Your task to perform on an android device: clear all cookies in the chrome app Image 0: 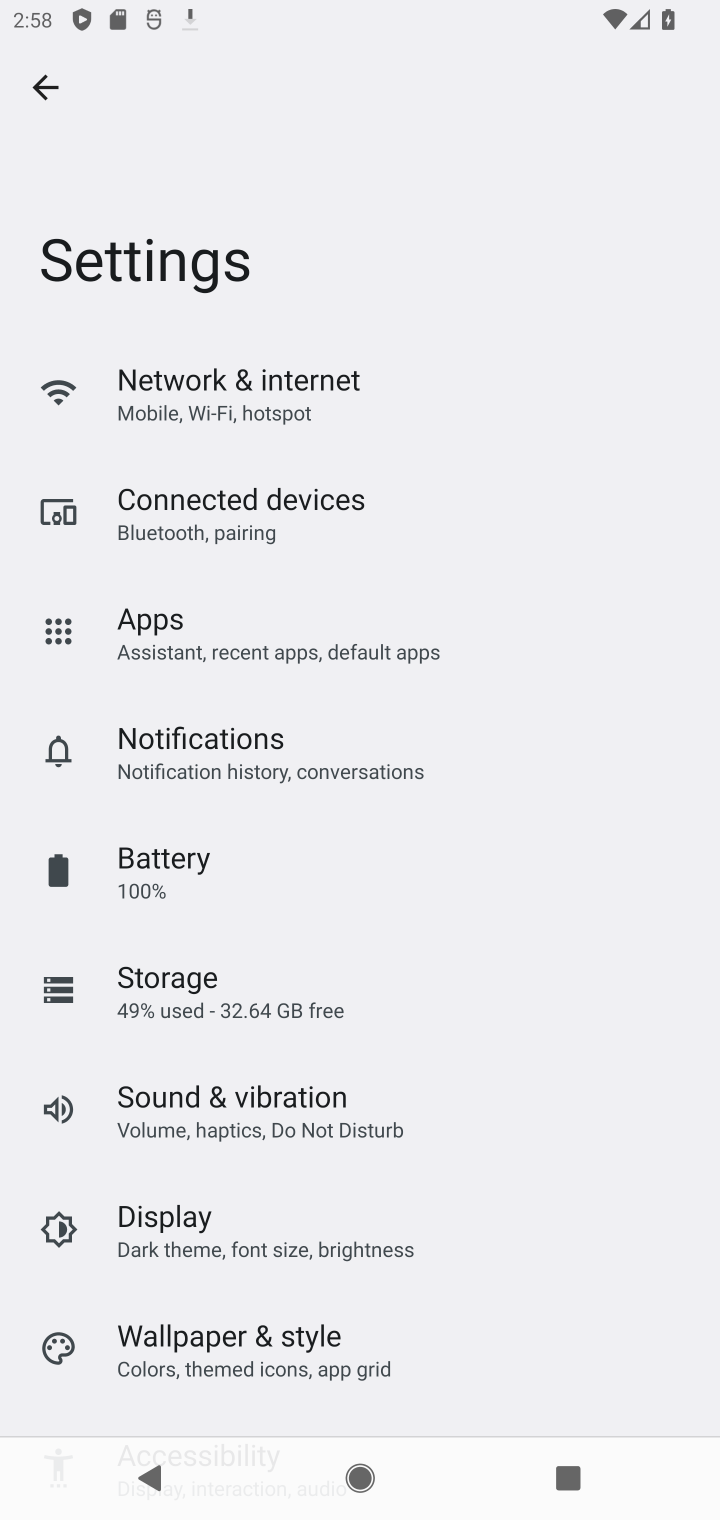
Step 0: press back button
Your task to perform on an android device: clear all cookies in the chrome app Image 1: 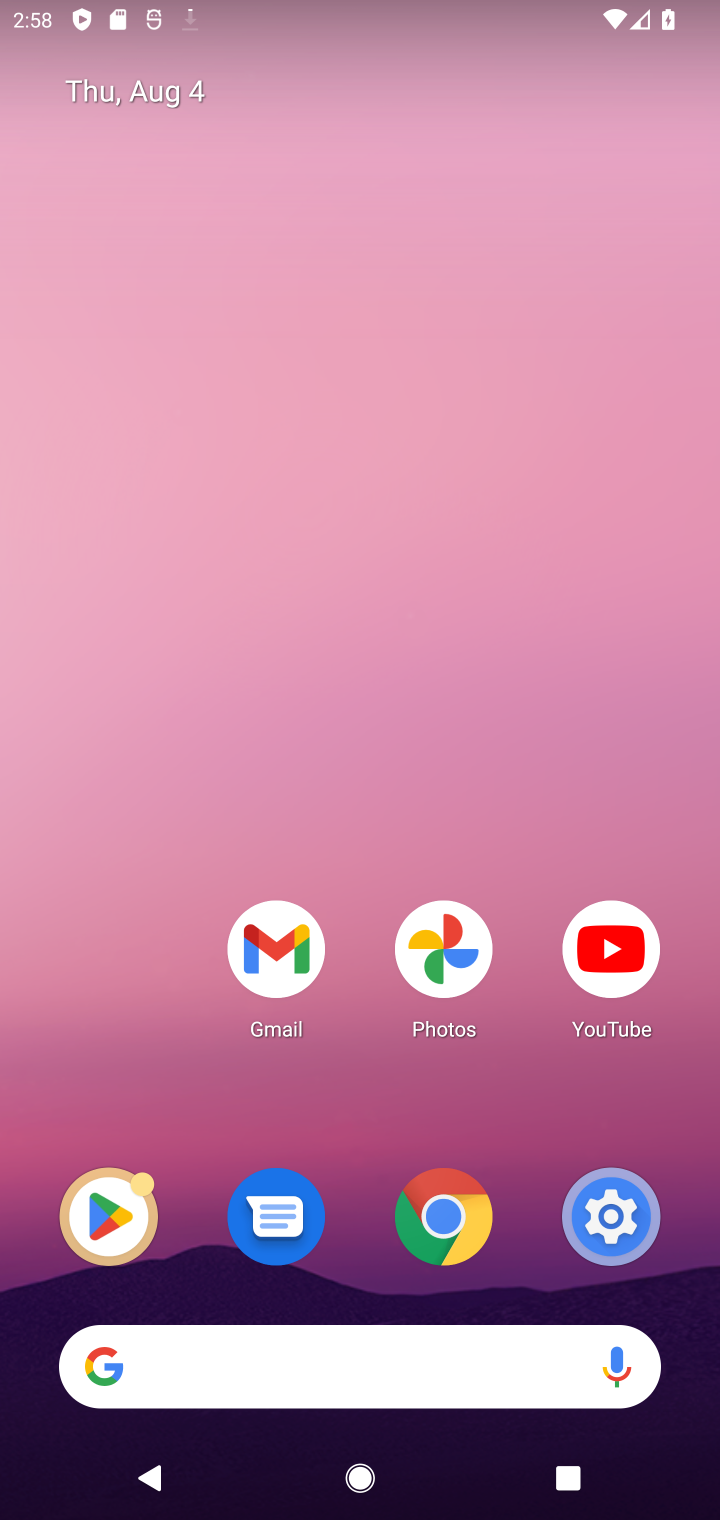
Step 1: click (449, 1212)
Your task to perform on an android device: clear all cookies in the chrome app Image 2: 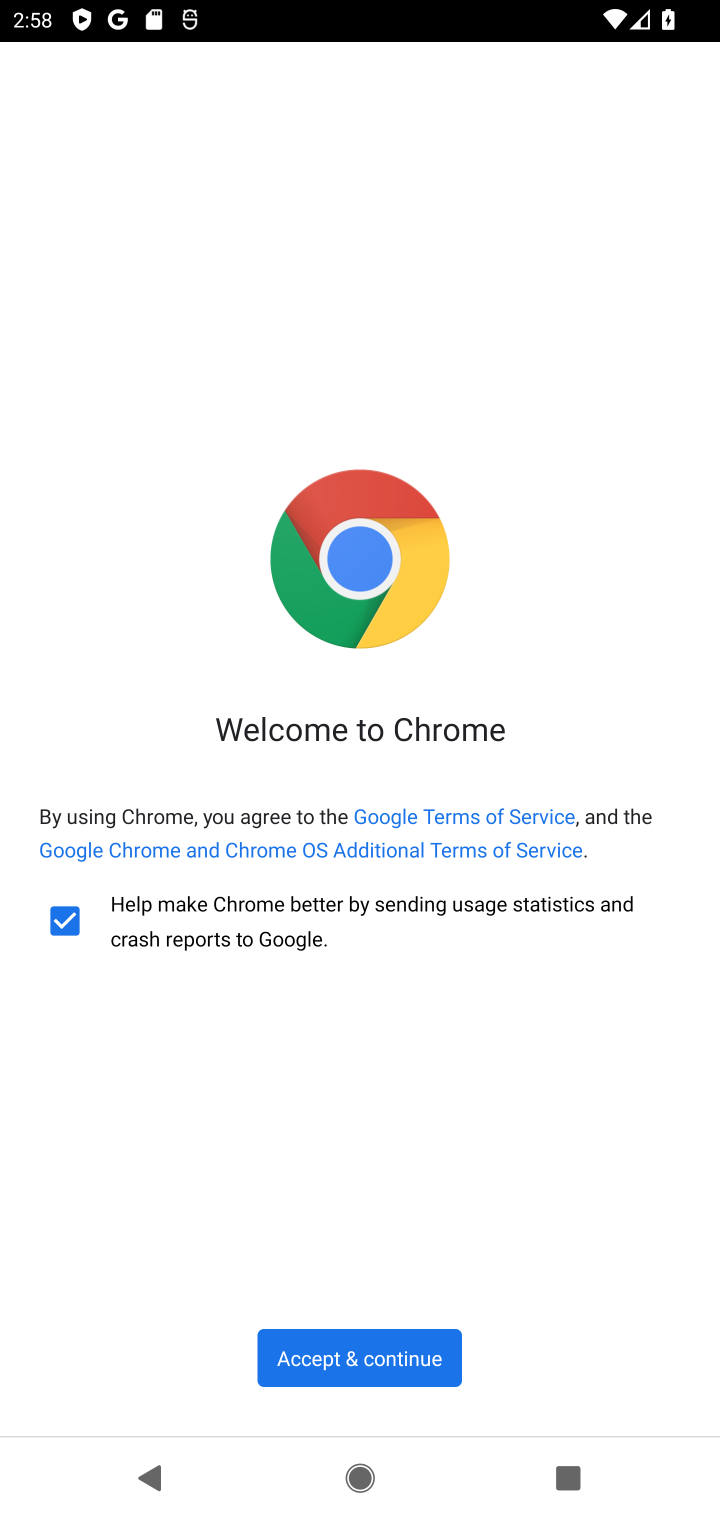
Step 2: click (351, 1361)
Your task to perform on an android device: clear all cookies in the chrome app Image 3: 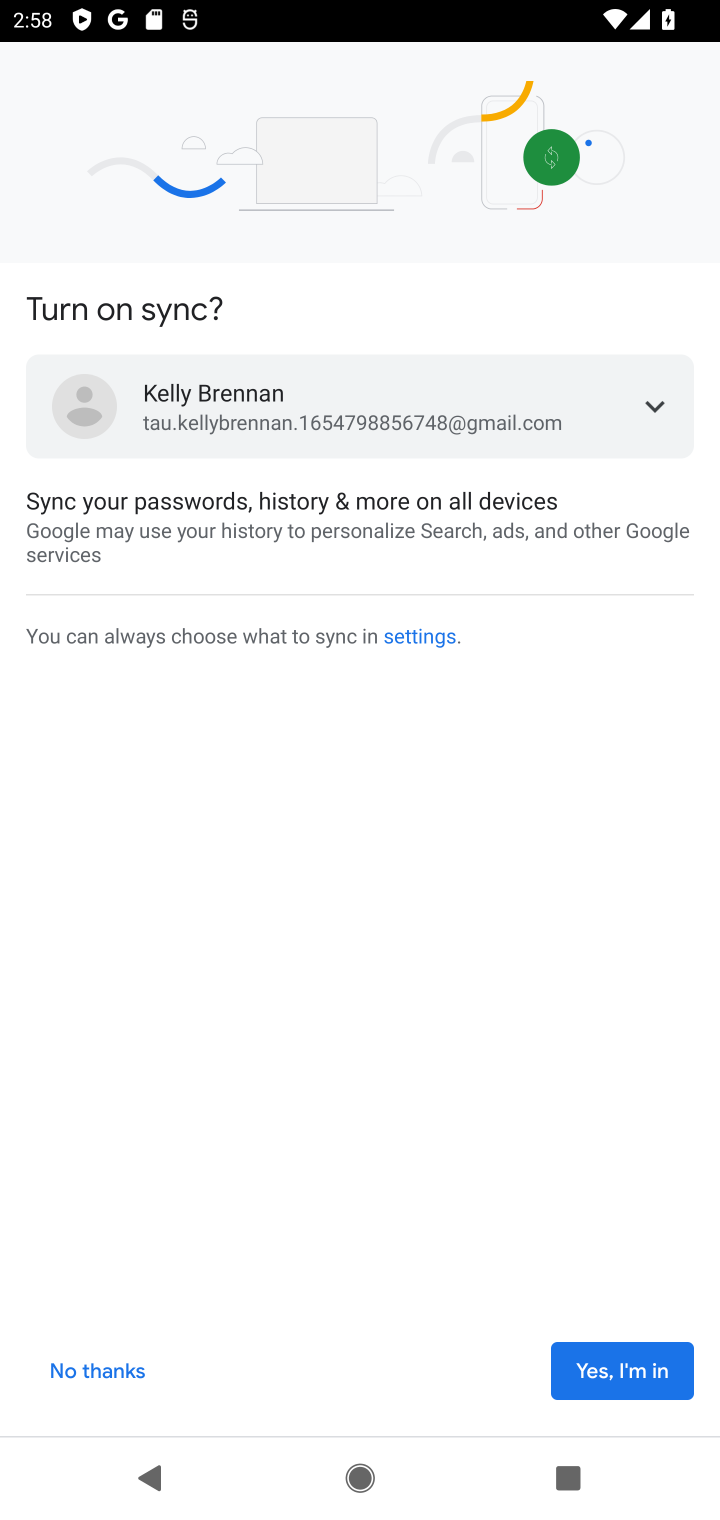
Step 3: click (613, 1362)
Your task to perform on an android device: clear all cookies in the chrome app Image 4: 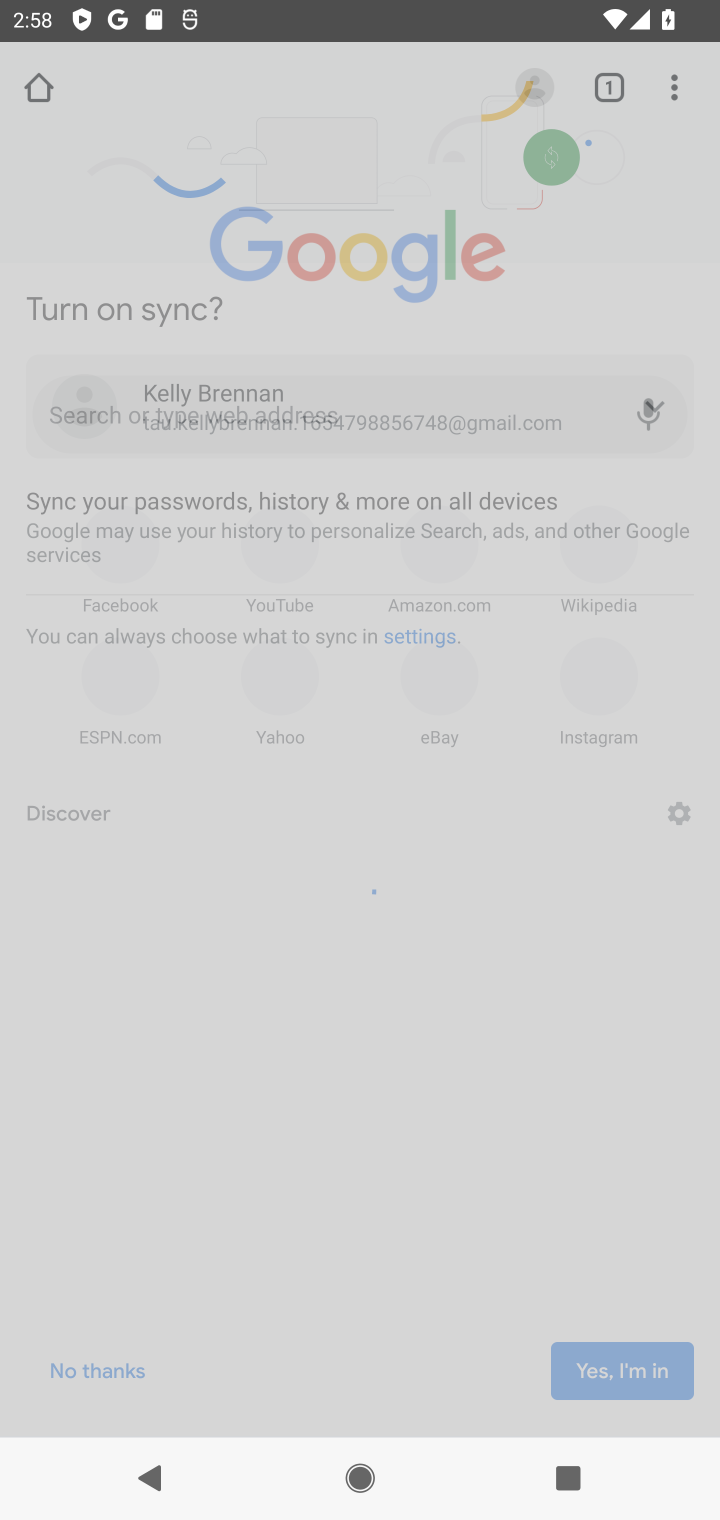
Step 4: click (615, 1362)
Your task to perform on an android device: clear all cookies in the chrome app Image 5: 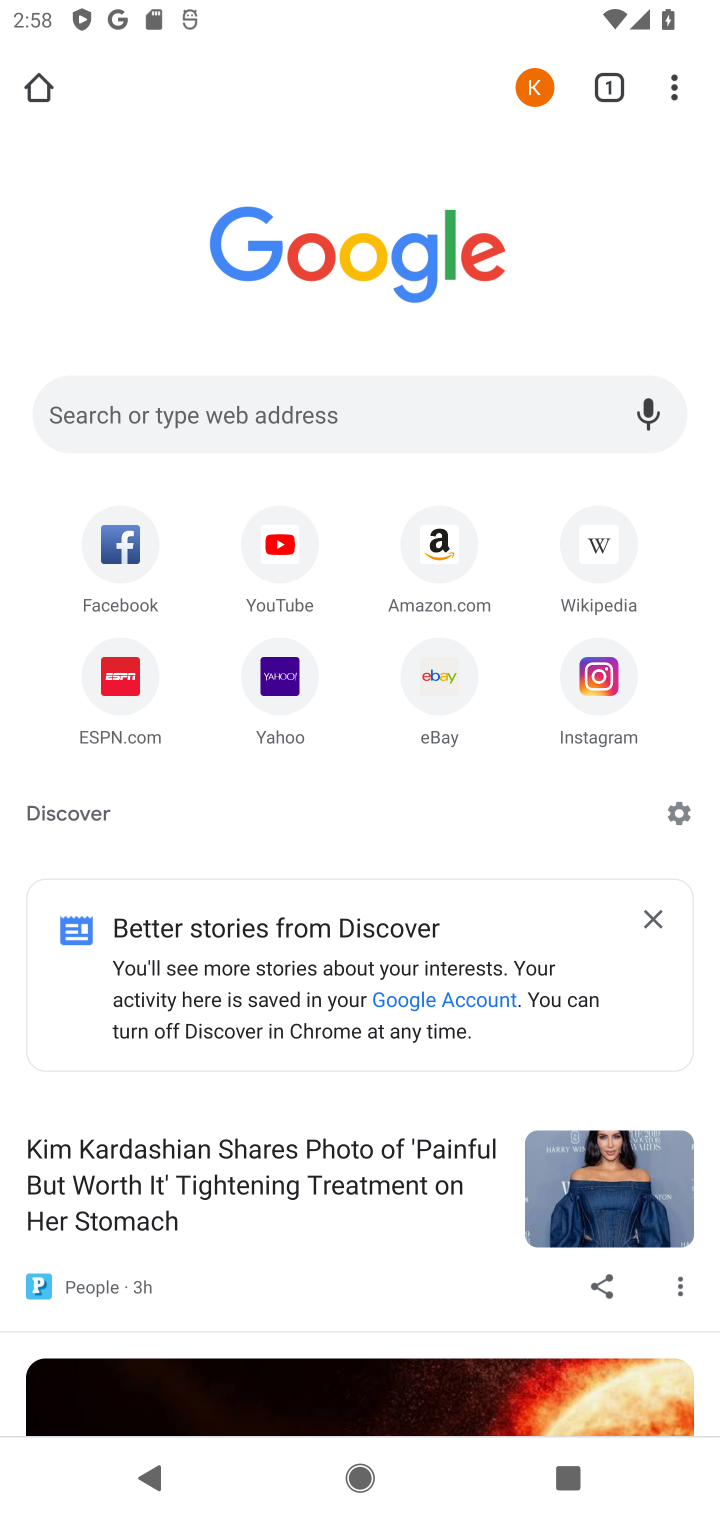
Step 5: task complete